Your task to perform on an android device: Show the shopping cart on target.com. Image 0: 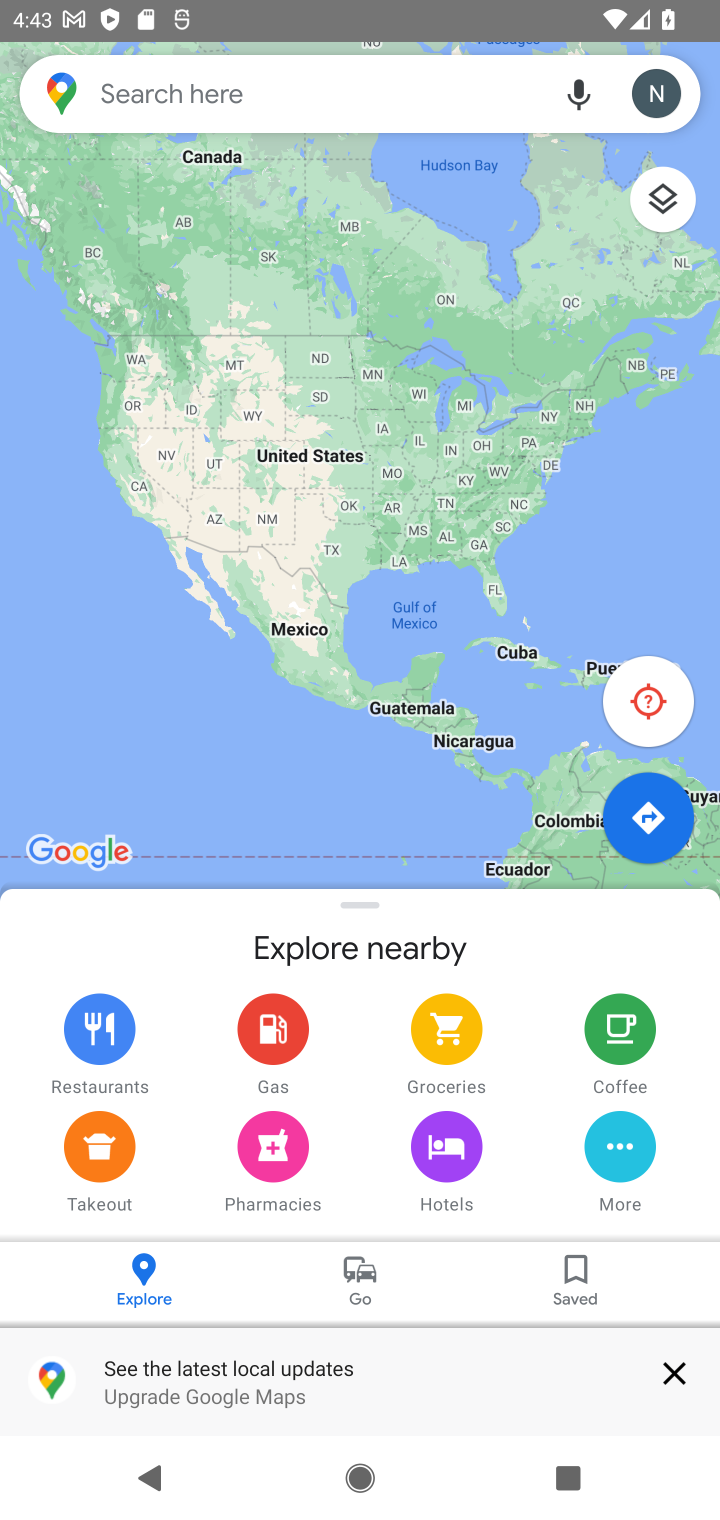
Step 0: press home button
Your task to perform on an android device: Show the shopping cart on target.com. Image 1: 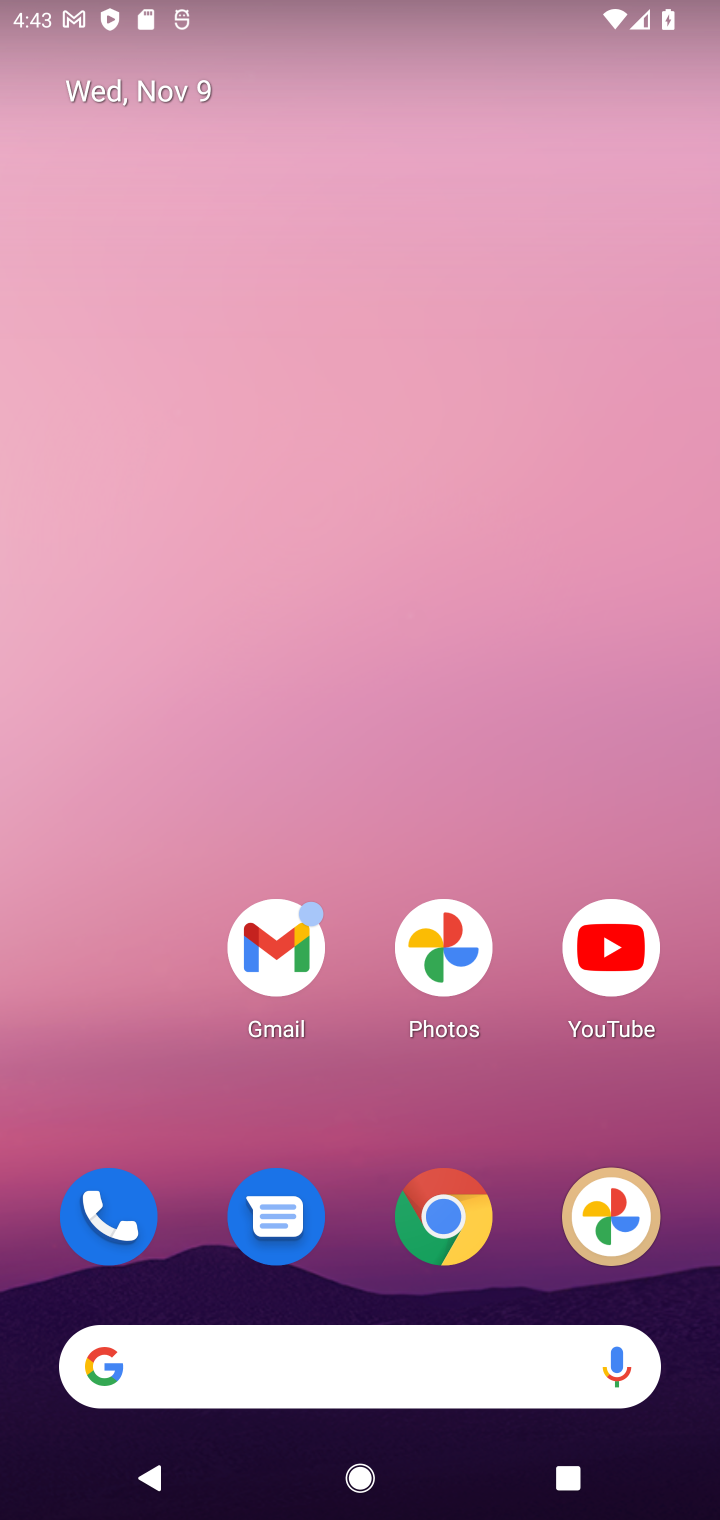
Step 1: drag from (328, 1084) to (342, 377)
Your task to perform on an android device: Show the shopping cart on target.com. Image 2: 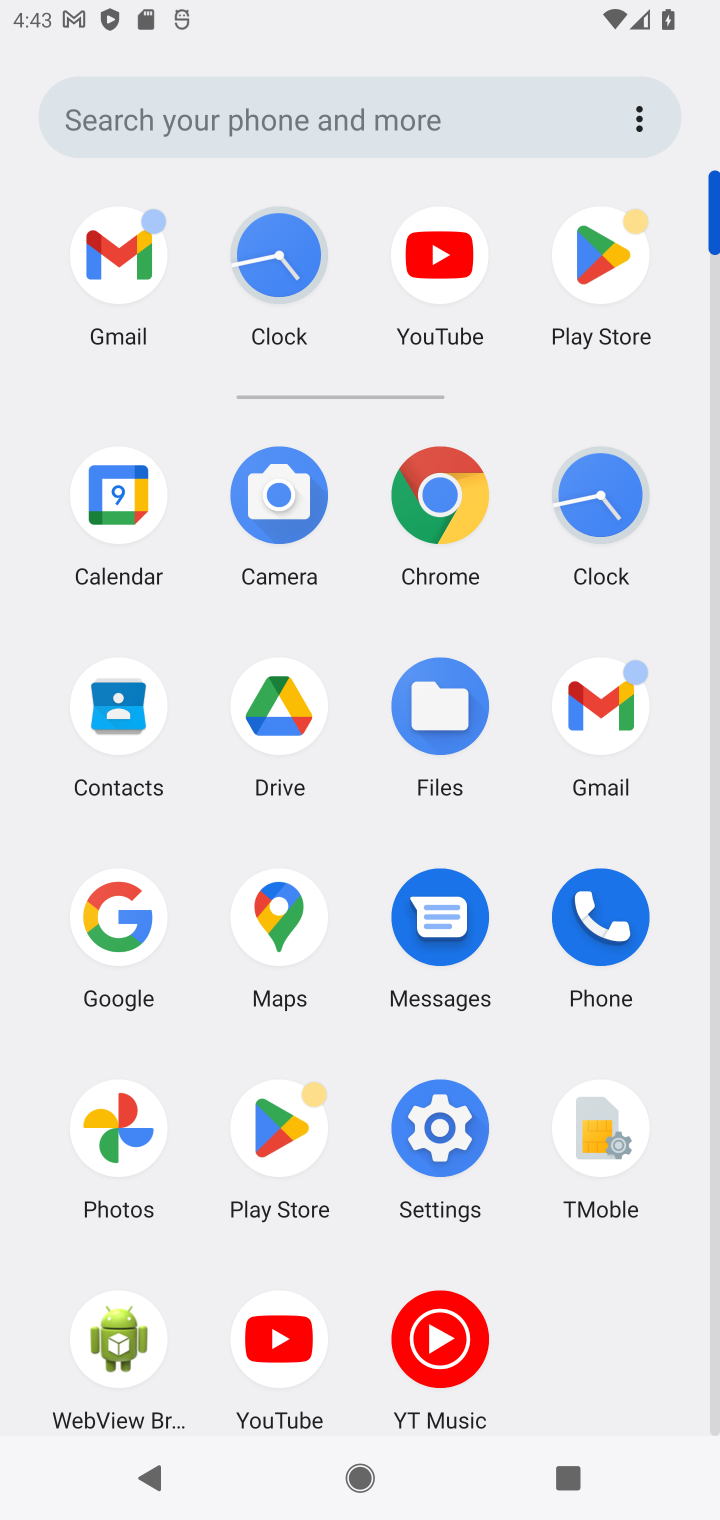
Step 2: click (420, 502)
Your task to perform on an android device: Show the shopping cart on target.com. Image 3: 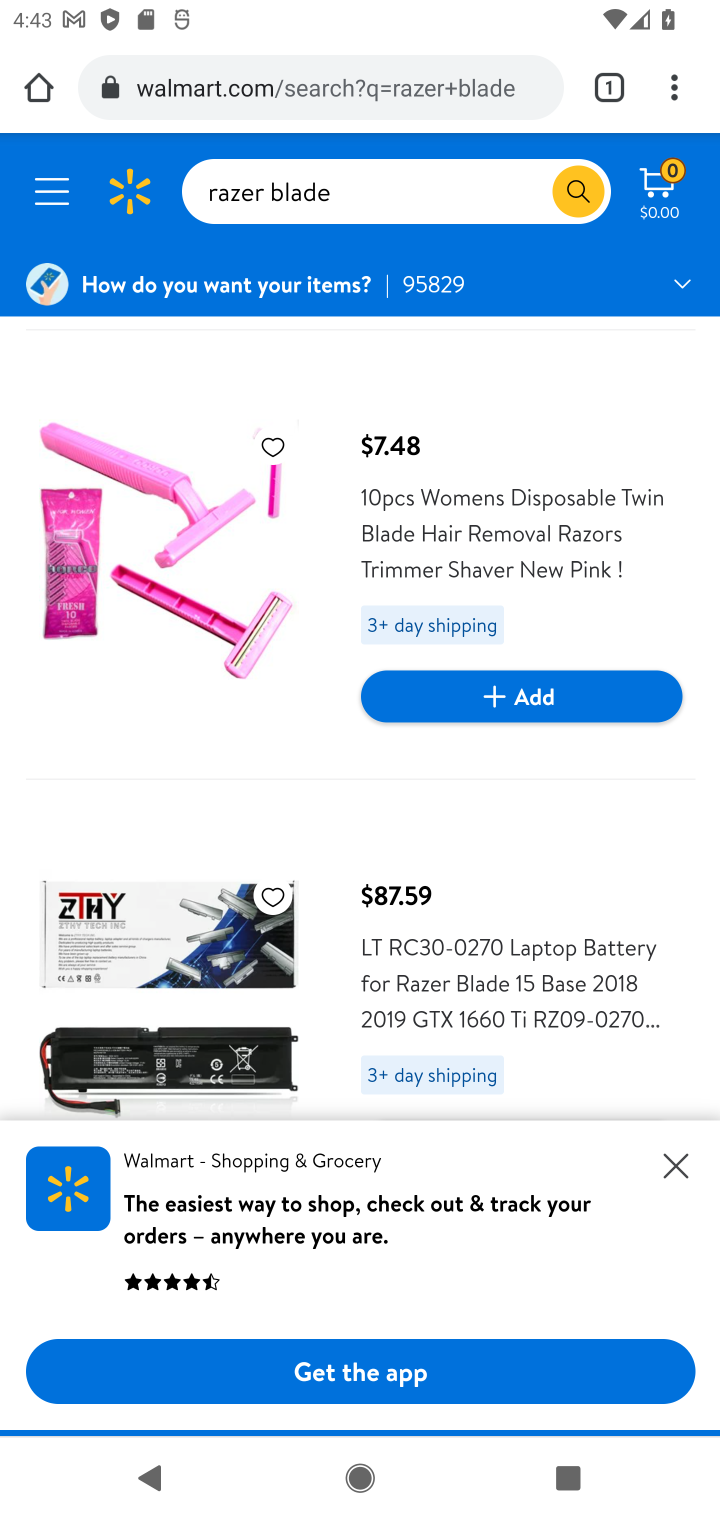
Step 3: click (437, 82)
Your task to perform on an android device: Show the shopping cart on target.com. Image 4: 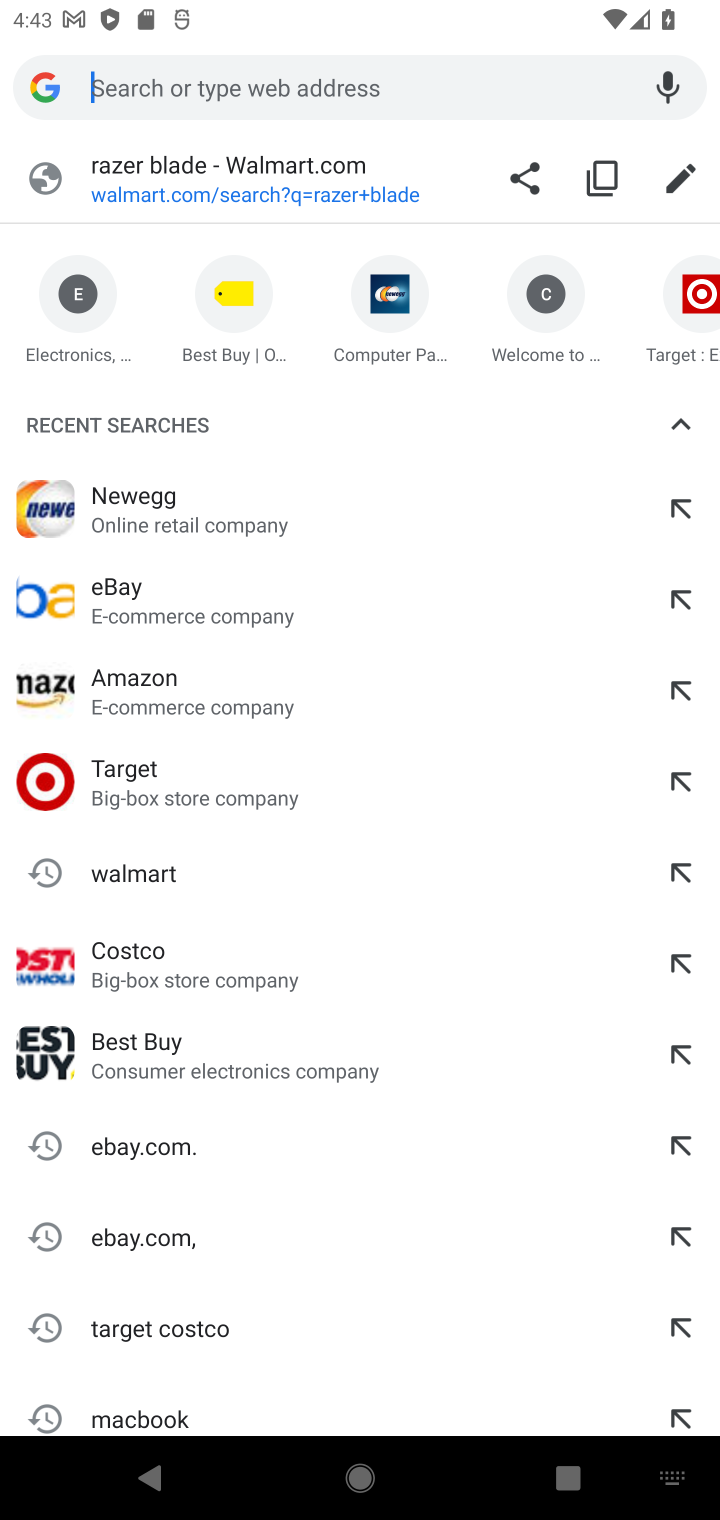
Step 4: type "target.com"
Your task to perform on an android device: Show the shopping cart on target.com. Image 5: 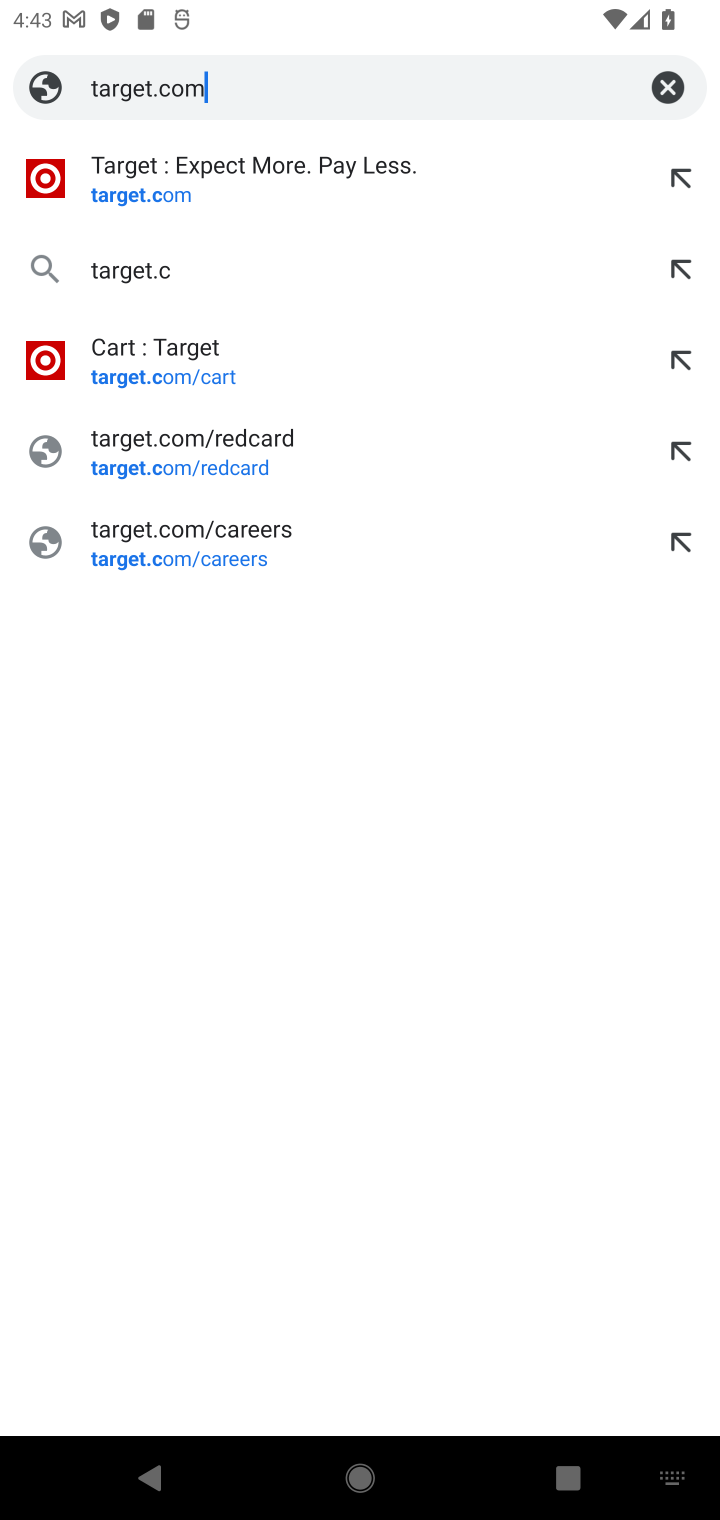
Step 5: press enter
Your task to perform on an android device: Show the shopping cart on target.com. Image 6: 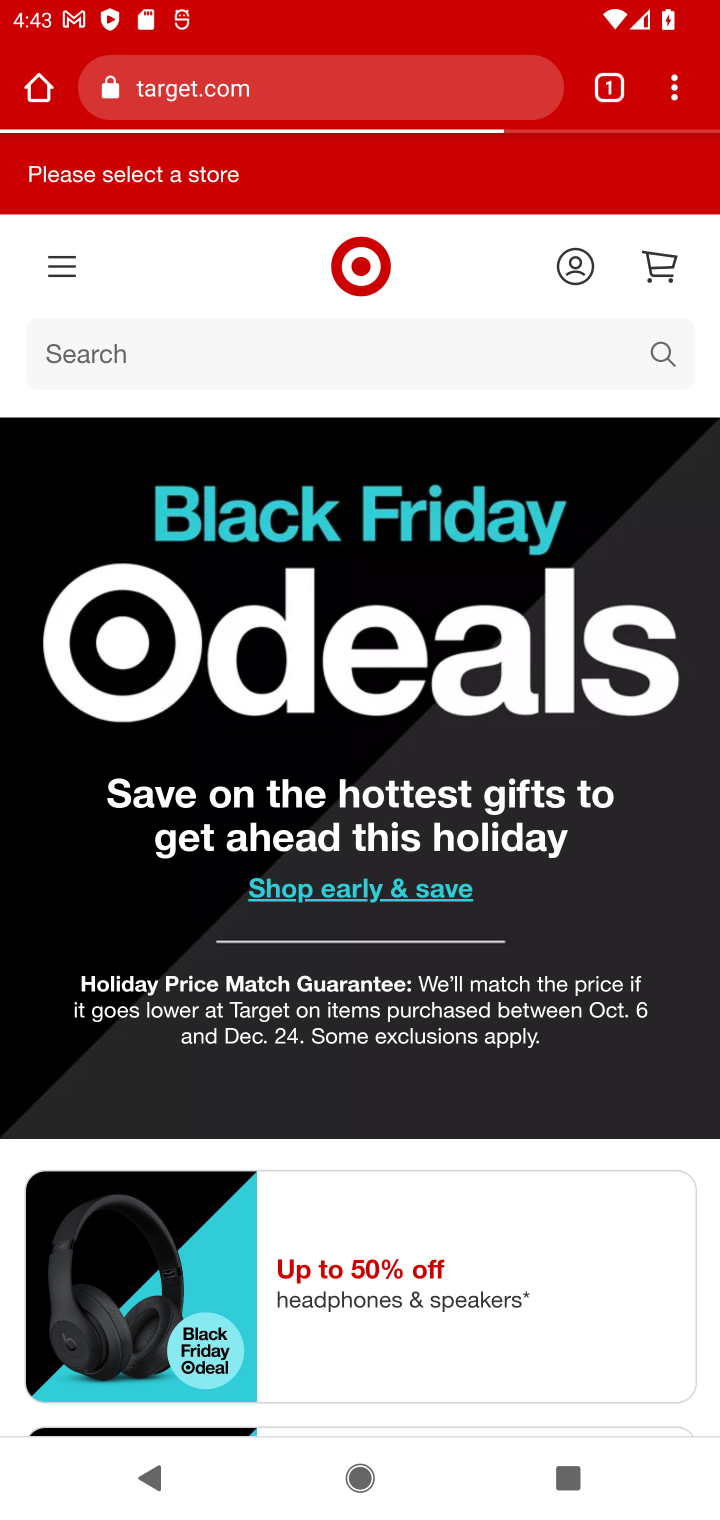
Step 6: click (678, 256)
Your task to perform on an android device: Show the shopping cart on target.com. Image 7: 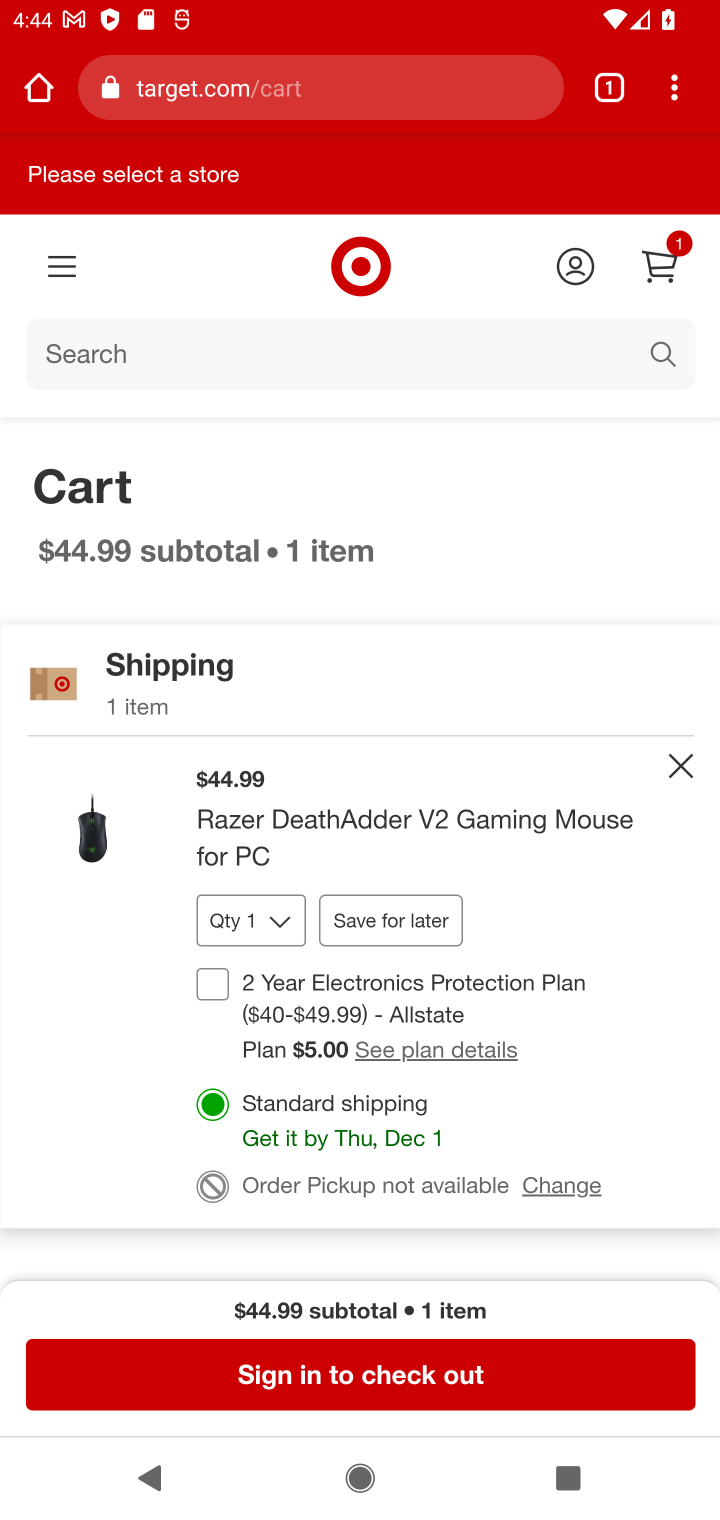
Step 7: task complete